Your task to perform on an android device: Search for vegetarian restaurants on Maps Image 0: 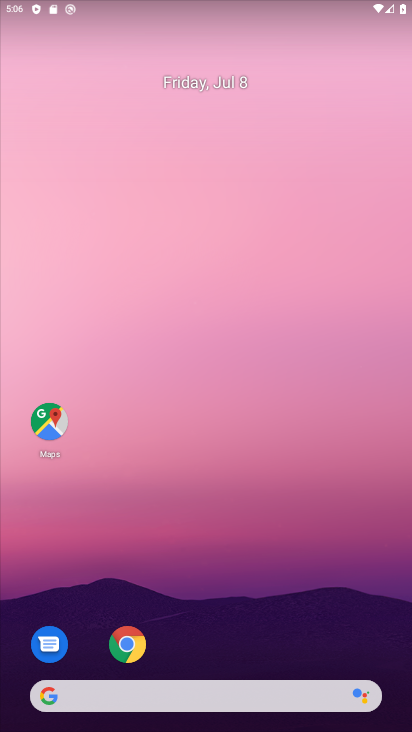
Step 0: drag from (218, 375) to (296, 71)
Your task to perform on an android device: Search for vegetarian restaurants on Maps Image 1: 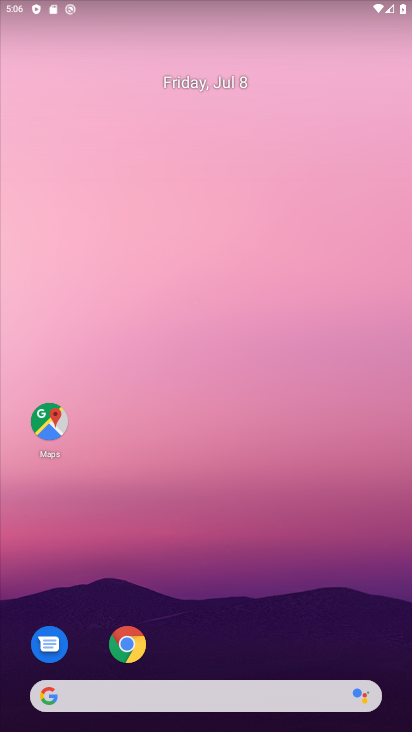
Step 1: click (41, 422)
Your task to perform on an android device: Search for vegetarian restaurants on Maps Image 2: 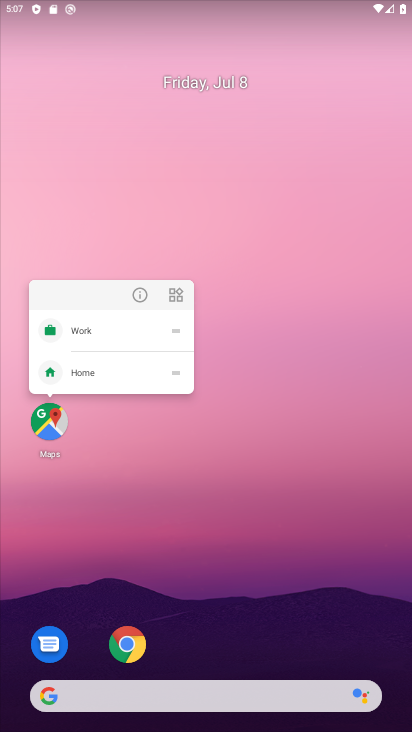
Step 2: click (49, 426)
Your task to perform on an android device: Search for vegetarian restaurants on Maps Image 3: 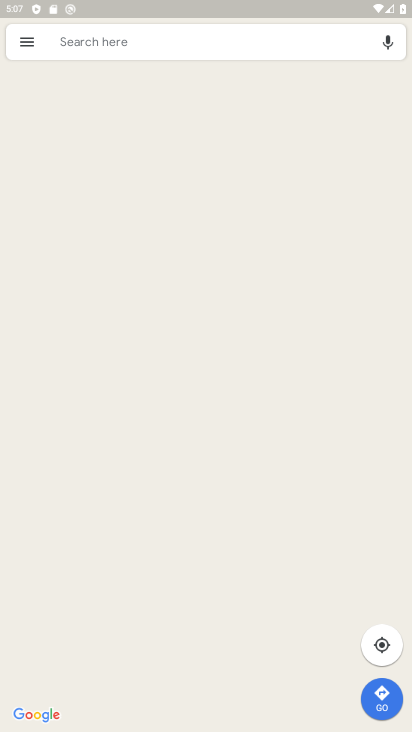
Step 3: click (149, 51)
Your task to perform on an android device: Search for vegetarian restaurants on Maps Image 4: 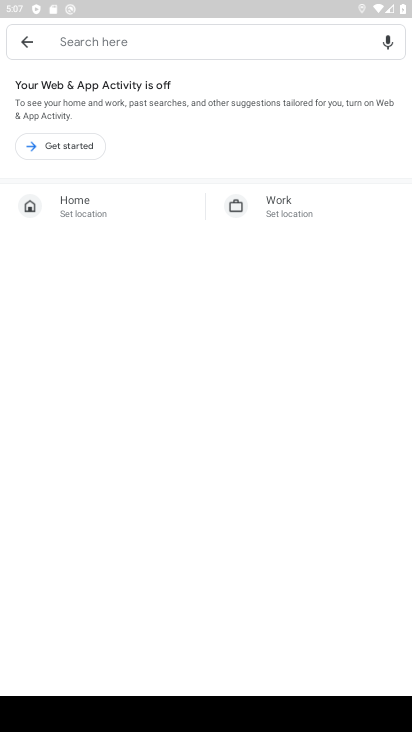
Step 4: type "vegetarian resturants"
Your task to perform on an android device: Search for vegetarian restaurants on Maps Image 5: 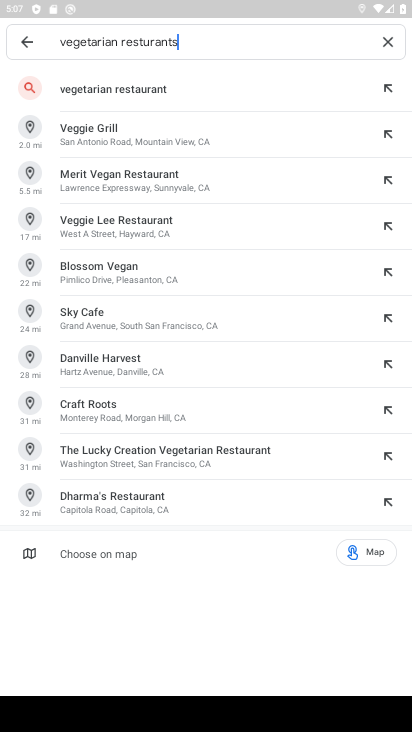
Step 5: press enter
Your task to perform on an android device: Search for vegetarian restaurants on Maps Image 6: 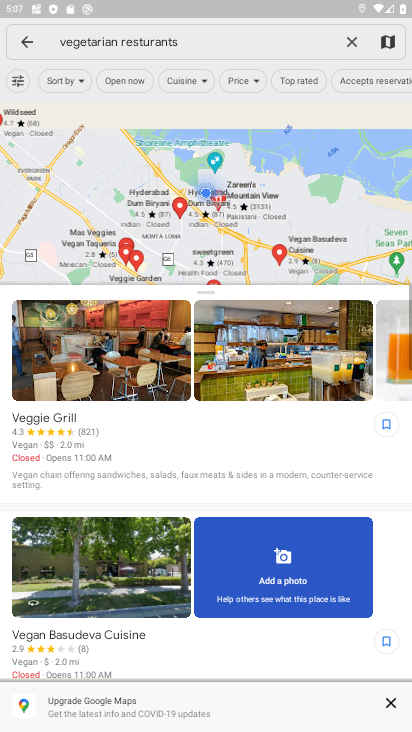
Step 6: task complete